Your task to perform on an android device: turn on bluetooth scan Image 0: 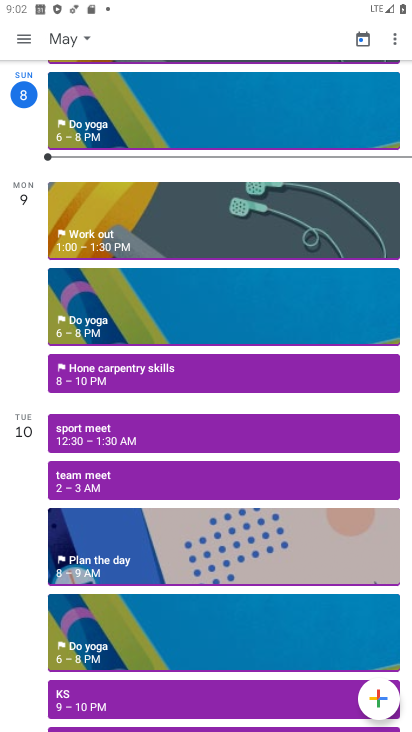
Step 0: drag from (207, 654) to (233, 114)
Your task to perform on an android device: turn on bluetooth scan Image 1: 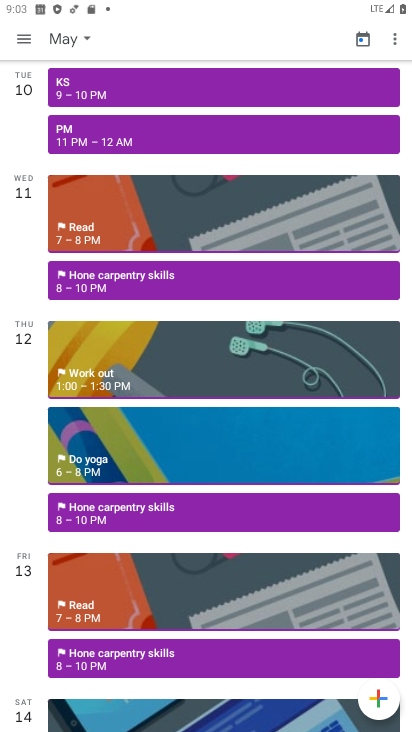
Step 1: press home button
Your task to perform on an android device: turn on bluetooth scan Image 2: 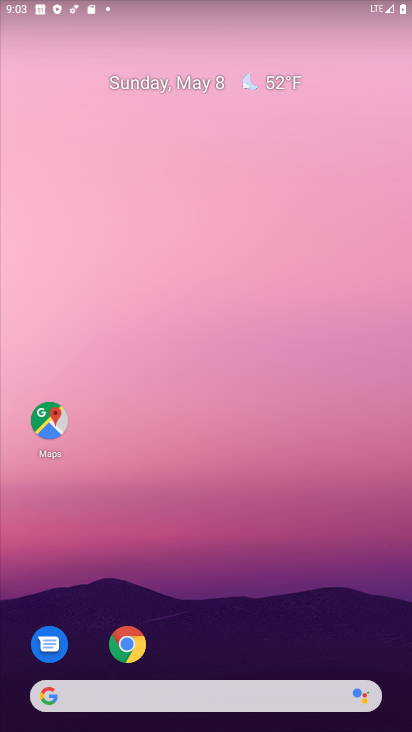
Step 2: drag from (198, 622) to (191, 253)
Your task to perform on an android device: turn on bluetooth scan Image 3: 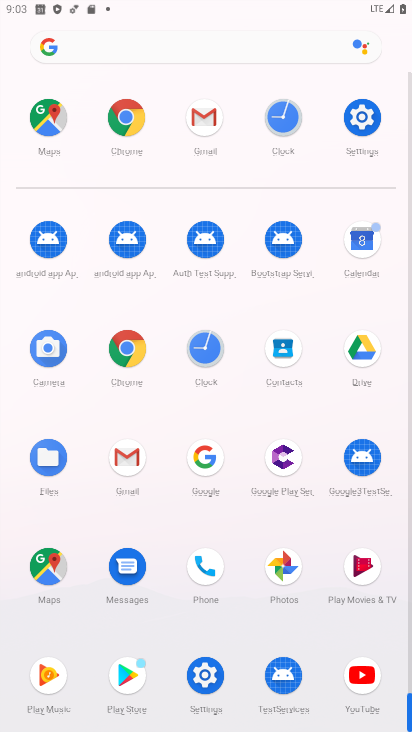
Step 3: click (369, 110)
Your task to perform on an android device: turn on bluetooth scan Image 4: 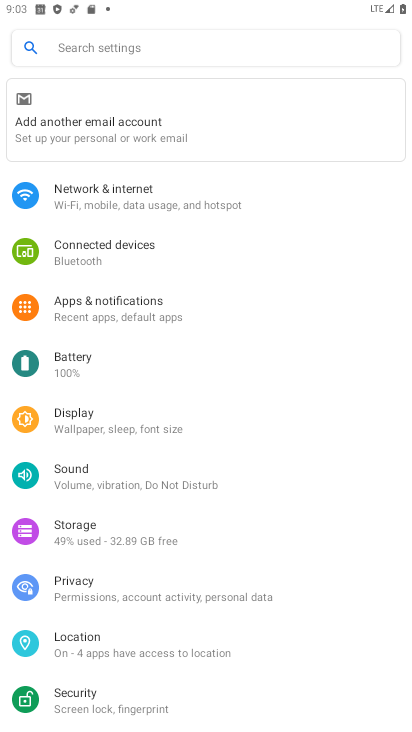
Step 4: click (155, 39)
Your task to perform on an android device: turn on bluetooth scan Image 5: 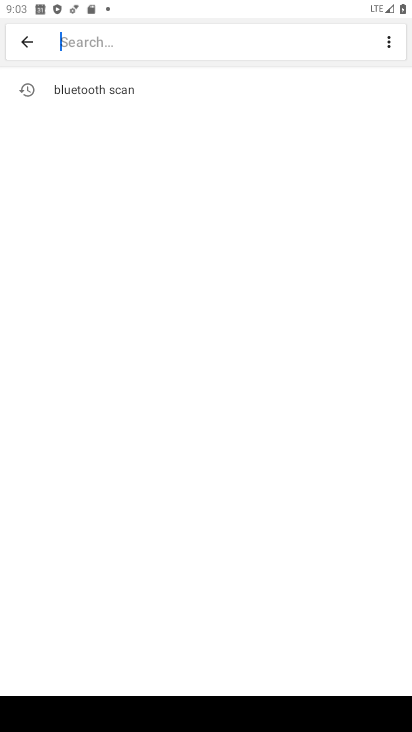
Step 5: type "bluetooth scan"
Your task to perform on an android device: turn on bluetooth scan Image 6: 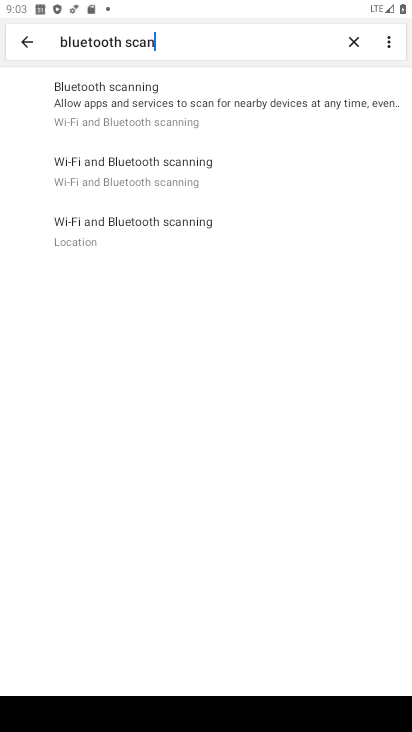
Step 6: click (186, 219)
Your task to perform on an android device: turn on bluetooth scan Image 7: 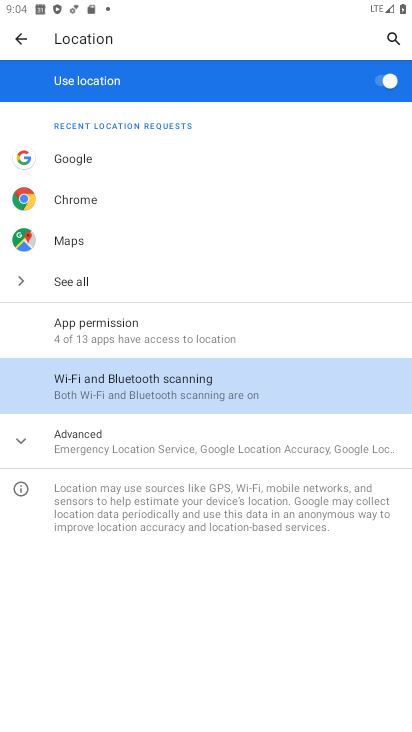
Step 7: click (16, 31)
Your task to perform on an android device: turn on bluetooth scan Image 8: 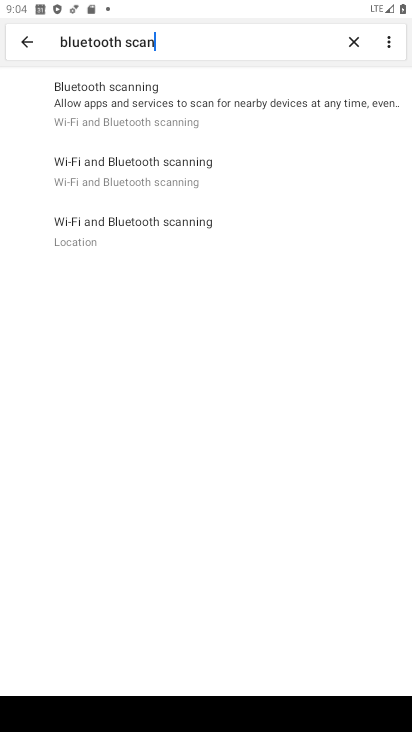
Step 8: click (209, 169)
Your task to perform on an android device: turn on bluetooth scan Image 9: 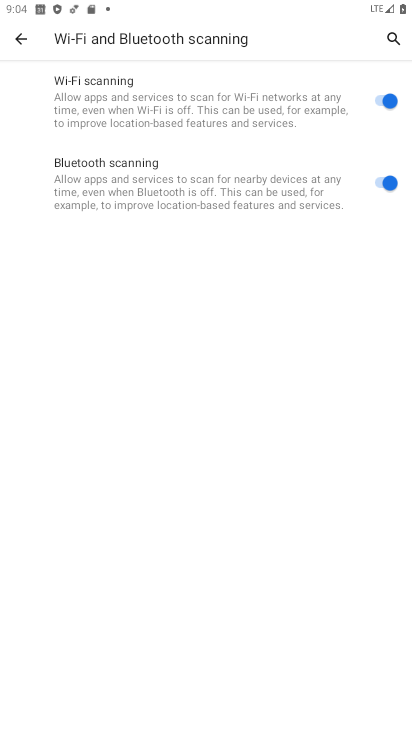
Step 9: task complete